Your task to perform on an android device: When is my next meeting? Image 0: 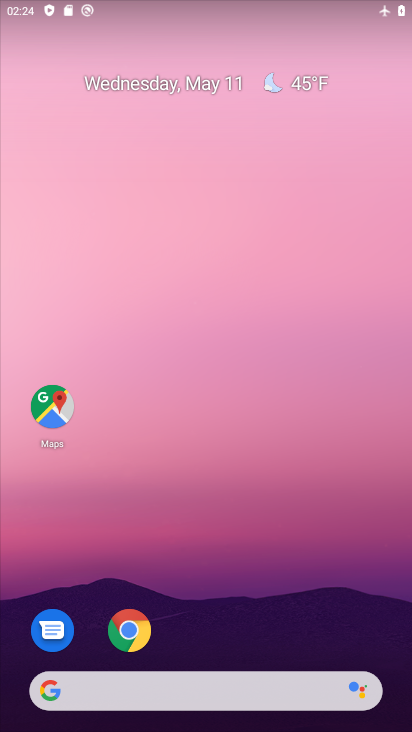
Step 0: drag from (202, 726) to (199, 85)
Your task to perform on an android device: When is my next meeting? Image 1: 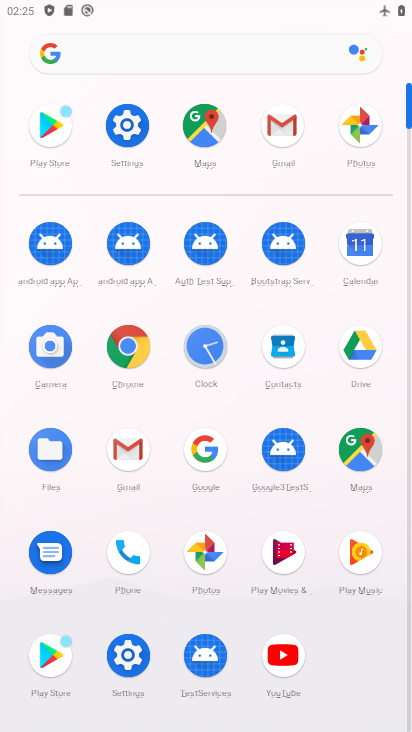
Step 1: click (361, 248)
Your task to perform on an android device: When is my next meeting? Image 2: 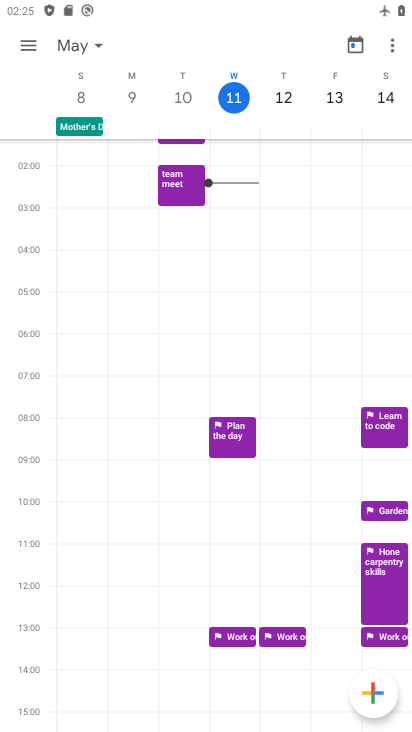
Step 2: click (287, 95)
Your task to perform on an android device: When is my next meeting? Image 3: 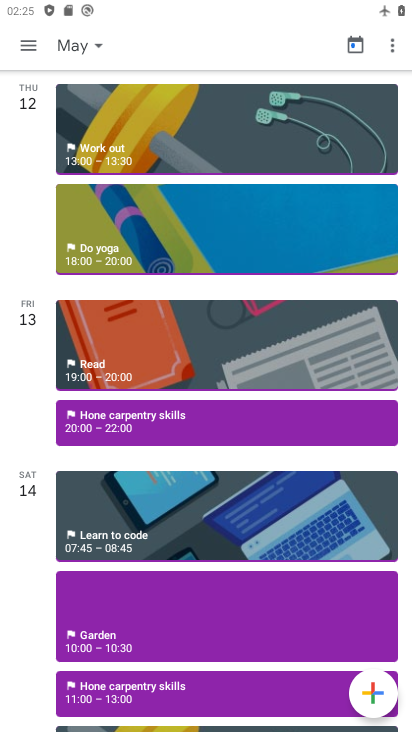
Step 3: task complete